Your task to perform on an android device: read, delete, or share a saved page in the chrome app Image 0: 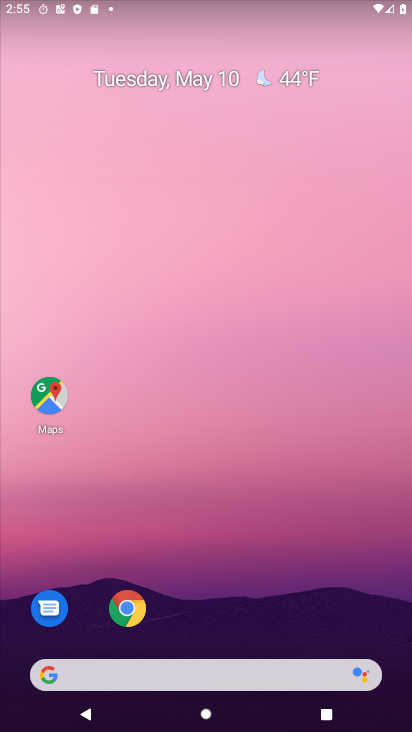
Step 0: click (131, 614)
Your task to perform on an android device: read, delete, or share a saved page in the chrome app Image 1: 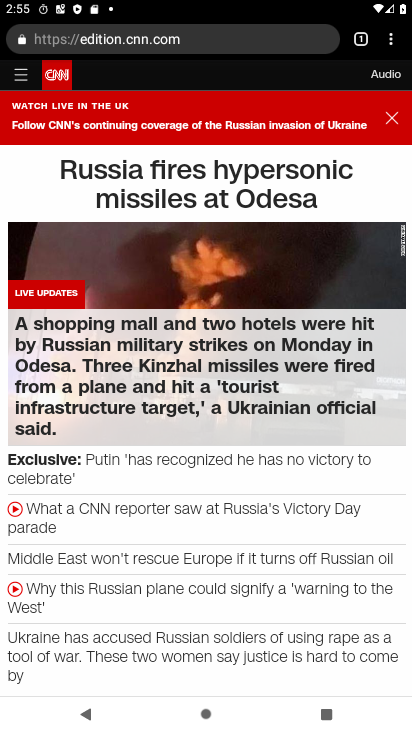
Step 1: drag from (394, 39) to (275, 252)
Your task to perform on an android device: read, delete, or share a saved page in the chrome app Image 2: 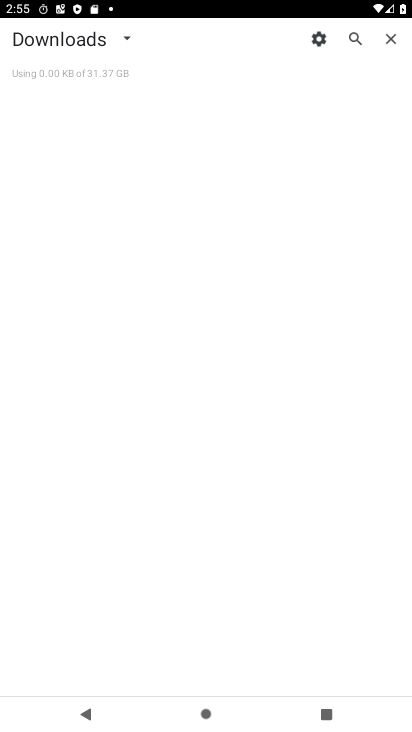
Step 2: click (129, 40)
Your task to perform on an android device: read, delete, or share a saved page in the chrome app Image 3: 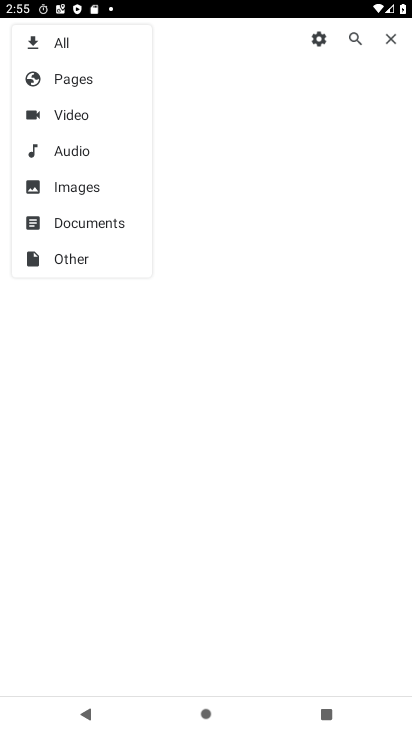
Step 3: click (80, 76)
Your task to perform on an android device: read, delete, or share a saved page in the chrome app Image 4: 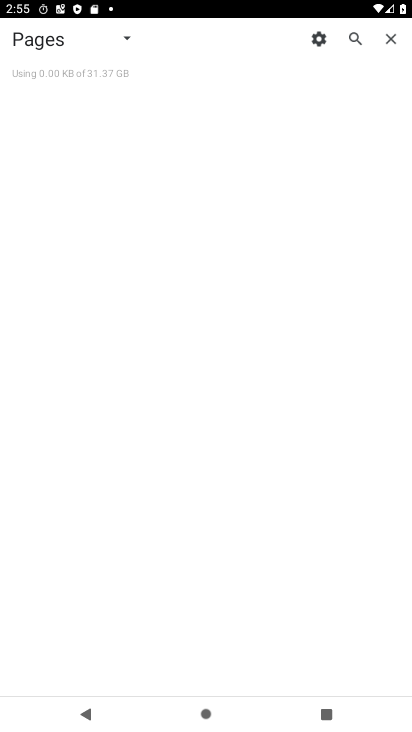
Step 4: task complete